Your task to perform on an android device: Go to display settings Image 0: 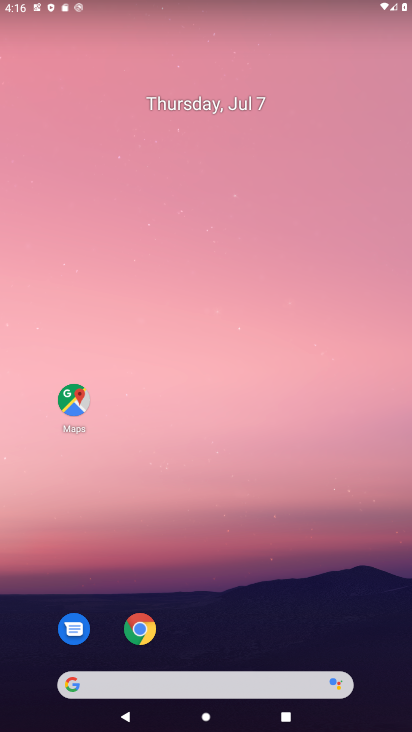
Step 0: drag from (251, 628) to (246, 305)
Your task to perform on an android device: Go to display settings Image 1: 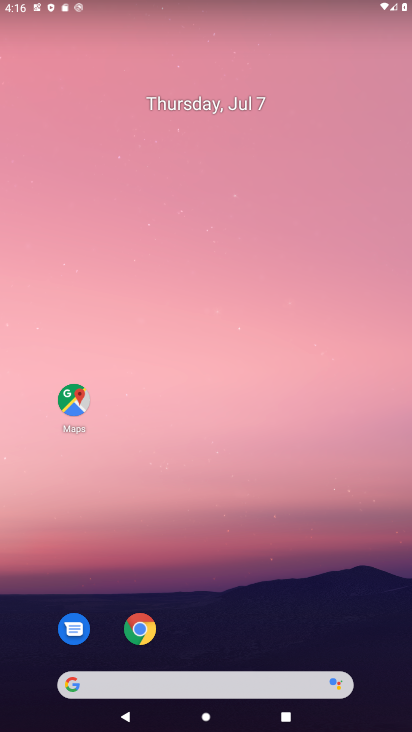
Step 1: drag from (255, 625) to (251, 210)
Your task to perform on an android device: Go to display settings Image 2: 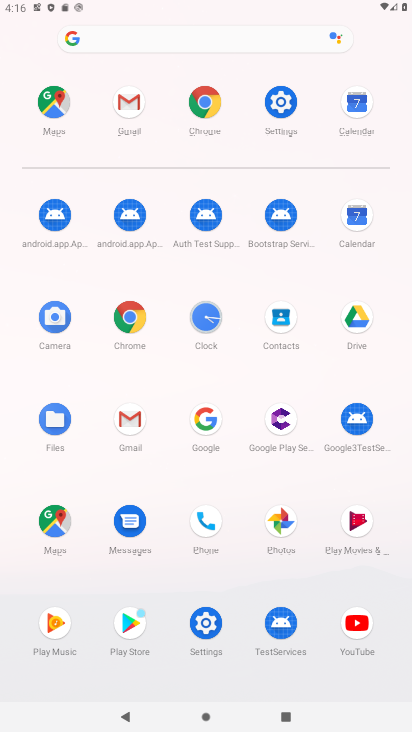
Step 2: click (286, 88)
Your task to perform on an android device: Go to display settings Image 3: 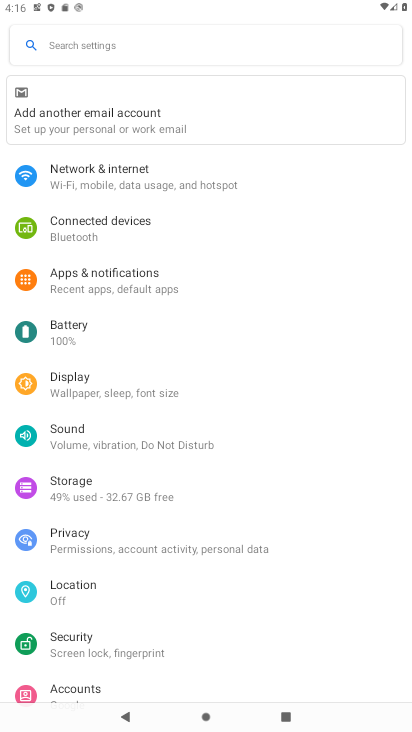
Step 3: click (120, 399)
Your task to perform on an android device: Go to display settings Image 4: 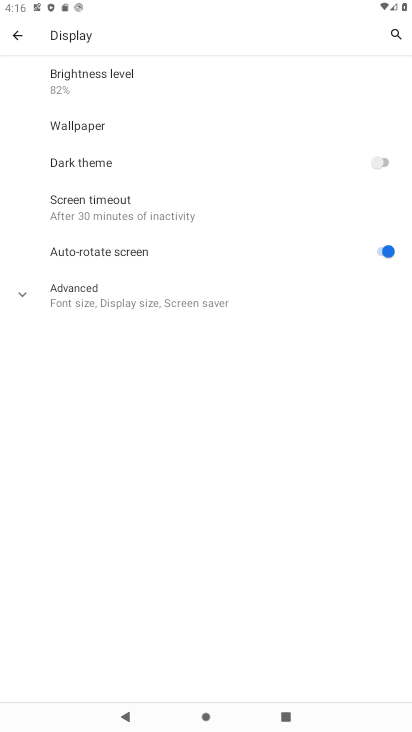
Step 4: task complete